Your task to perform on an android device: turn on translation in the chrome app Image 0: 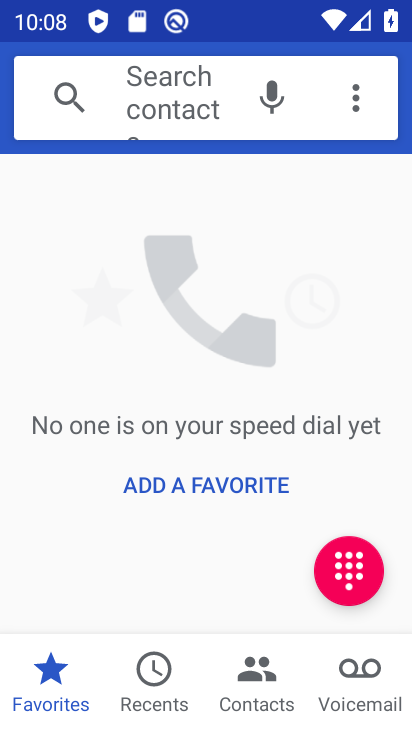
Step 0: press home button
Your task to perform on an android device: turn on translation in the chrome app Image 1: 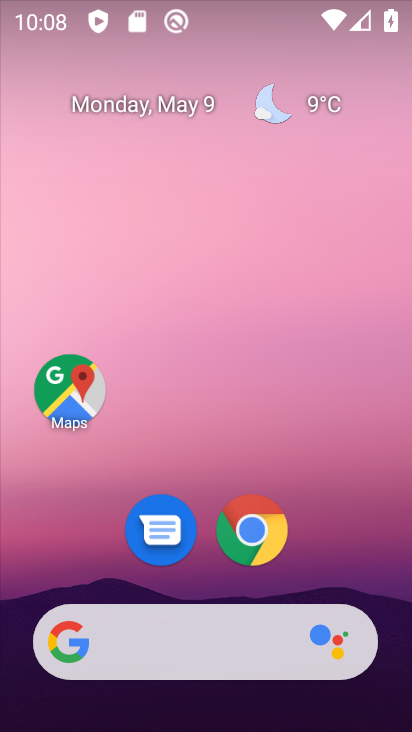
Step 1: drag from (283, 627) to (337, 90)
Your task to perform on an android device: turn on translation in the chrome app Image 2: 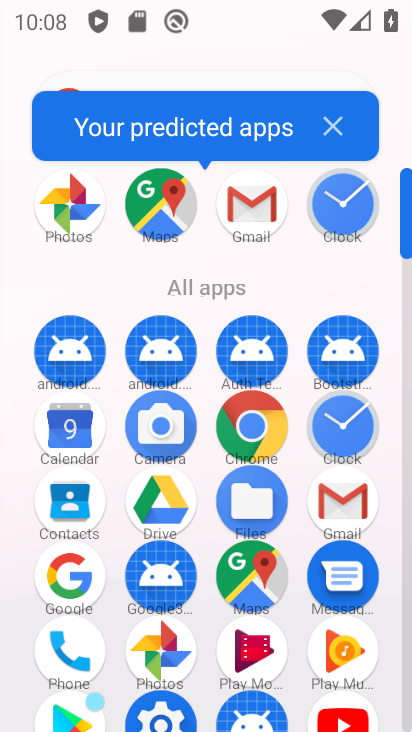
Step 2: click (249, 429)
Your task to perform on an android device: turn on translation in the chrome app Image 3: 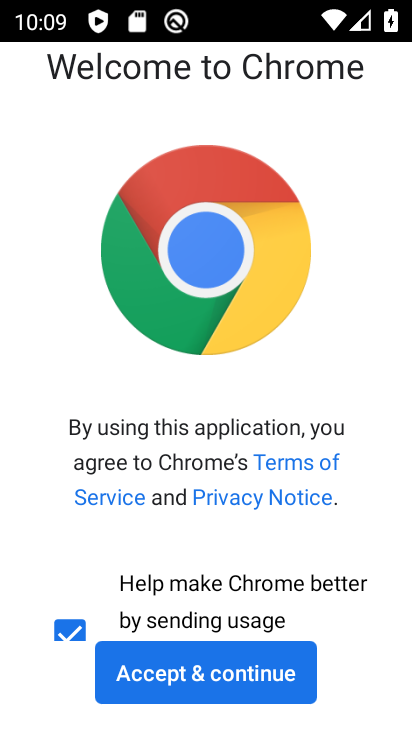
Step 3: click (203, 653)
Your task to perform on an android device: turn on translation in the chrome app Image 4: 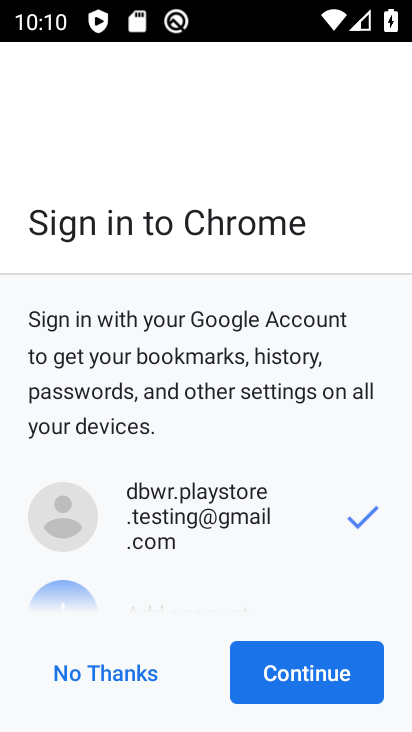
Step 4: click (312, 672)
Your task to perform on an android device: turn on translation in the chrome app Image 5: 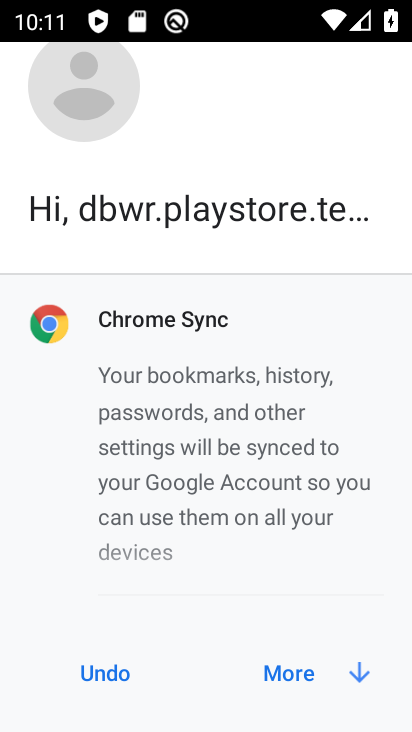
Step 5: click (123, 669)
Your task to perform on an android device: turn on translation in the chrome app Image 6: 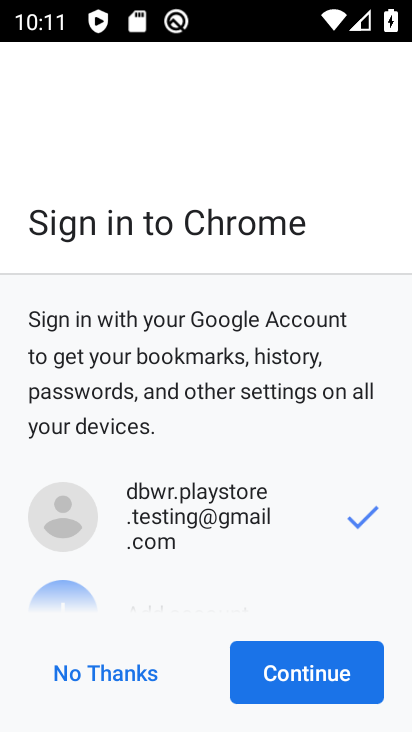
Step 6: click (120, 673)
Your task to perform on an android device: turn on translation in the chrome app Image 7: 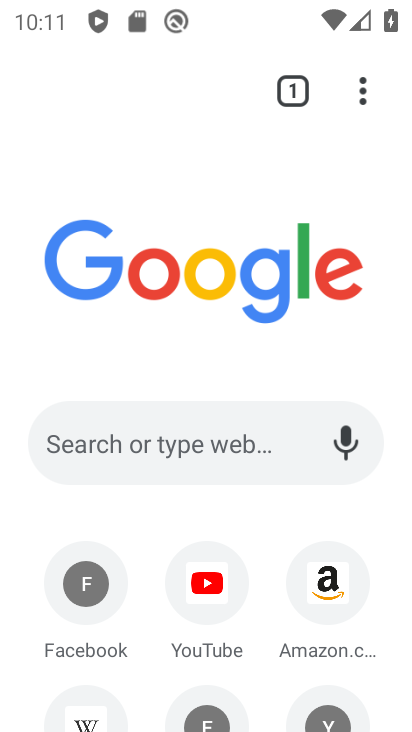
Step 7: drag from (358, 80) to (239, 594)
Your task to perform on an android device: turn on translation in the chrome app Image 8: 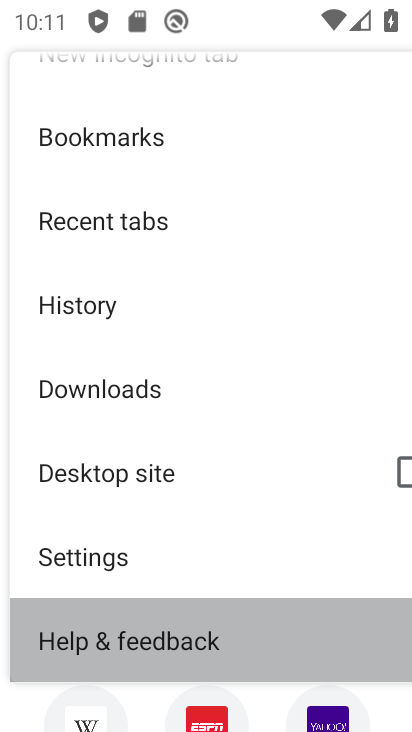
Step 8: click (243, 547)
Your task to perform on an android device: turn on translation in the chrome app Image 9: 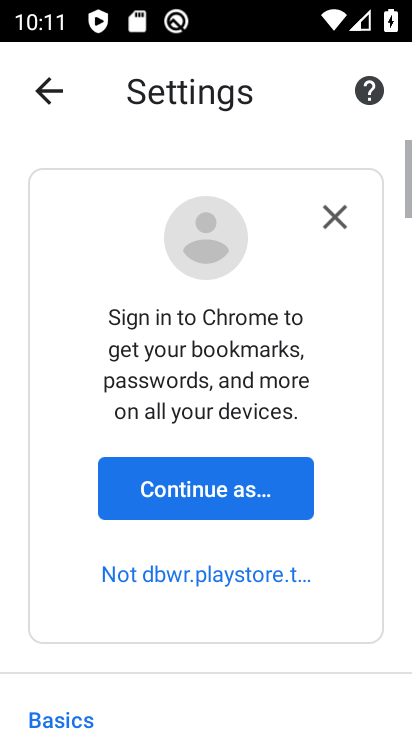
Step 9: drag from (187, 687) to (255, 90)
Your task to perform on an android device: turn on translation in the chrome app Image 10: 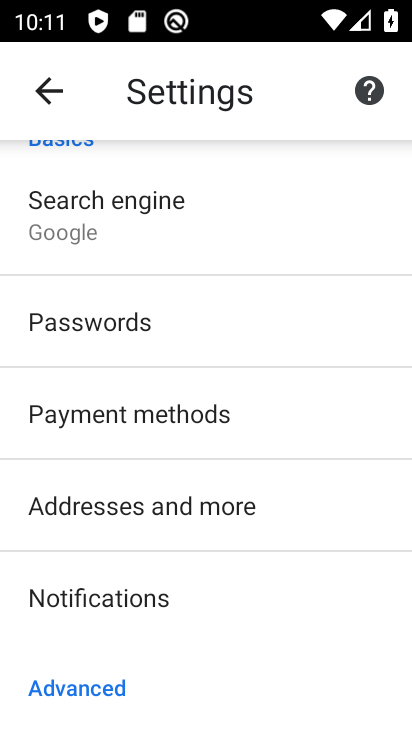
Step 10: drag from (209, 639) to (278, 120)
Your task to perform on an android device: turn on translation in the chrome app Image 11: 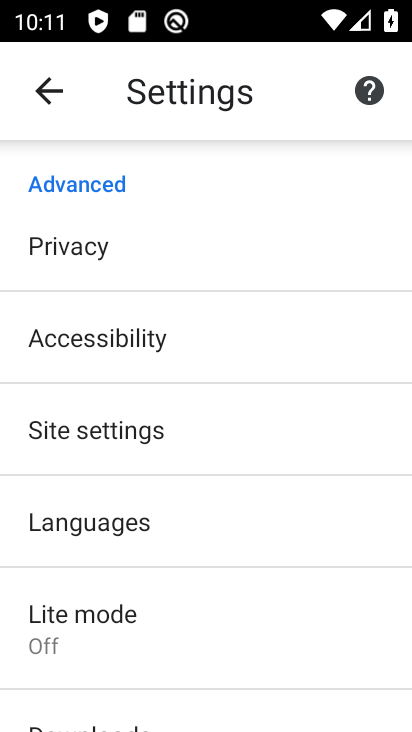
Step 11: drag from (207, 656) to (280, 167)
Your task to perform on an android device: turn on translation in the chrome app Image 12: 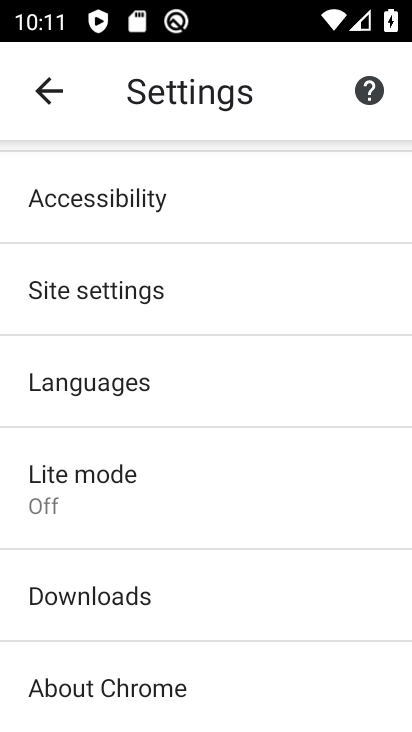
Step 12: click (248, 372)
Your task to perform on an android device: turn on translation in the chrome app Image 13: 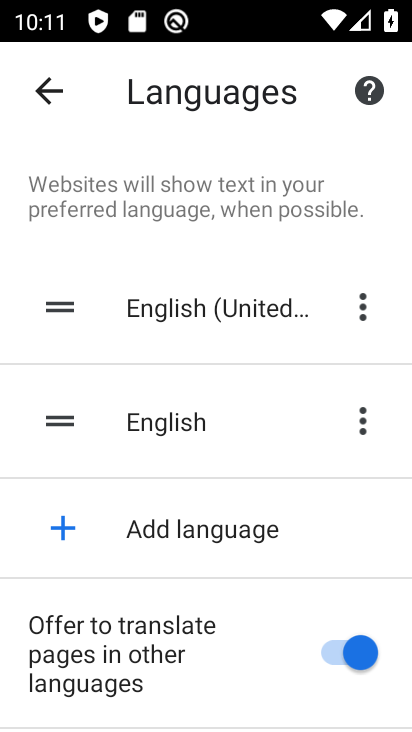
Step 13: task complete